Your task to perform on an android device: When is my next appointment? Image 0: 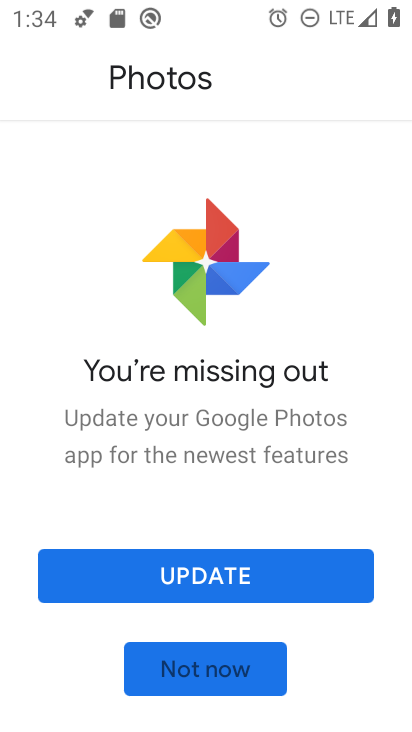
Step 0: press home button
Your task to perform on an android device: When is my next appointment? Image 1: 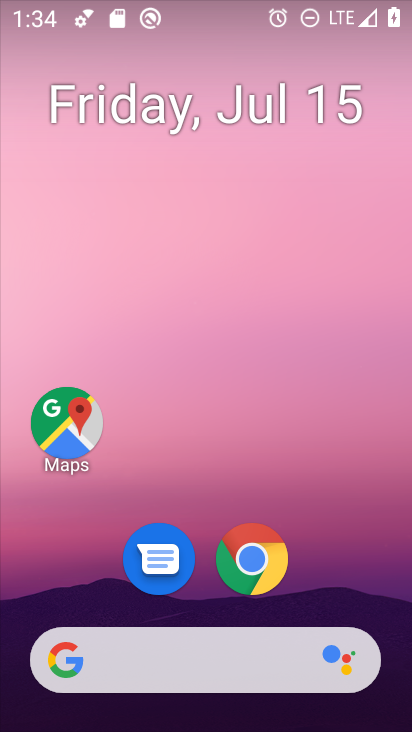
Step 1: drag from (328, 583) to (363, 93)
Your task to perform on an android device: When is my next appointment? Image 2: 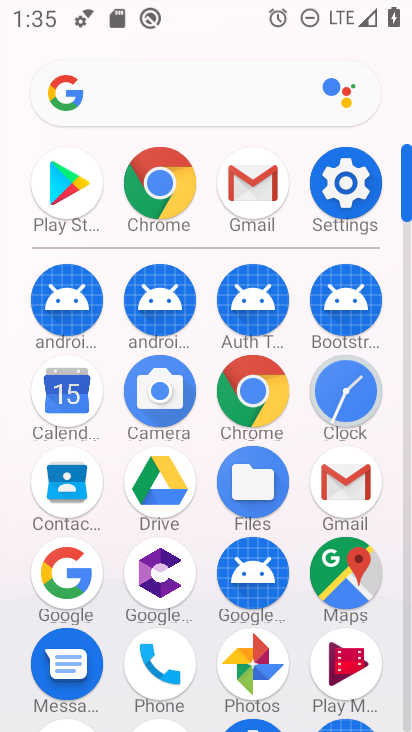
Step 2: click (61, 411)
Your task to perform on an android device: When is my next appointment? Image 3: 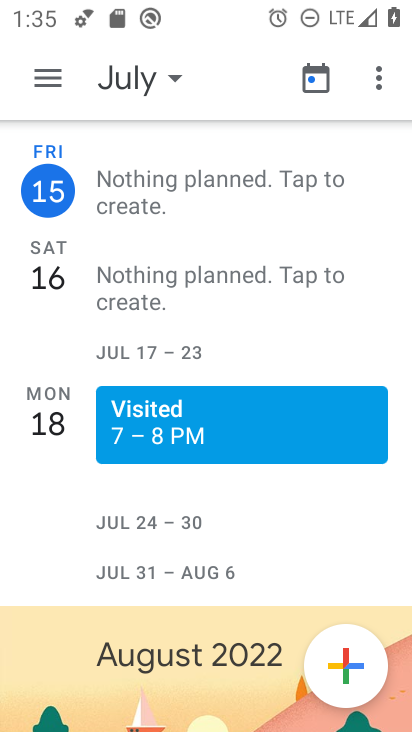
Step 3: drag from (252, 214) to (264, 331)
Your task to perform on an android device: When is my next appointment? Image 4: 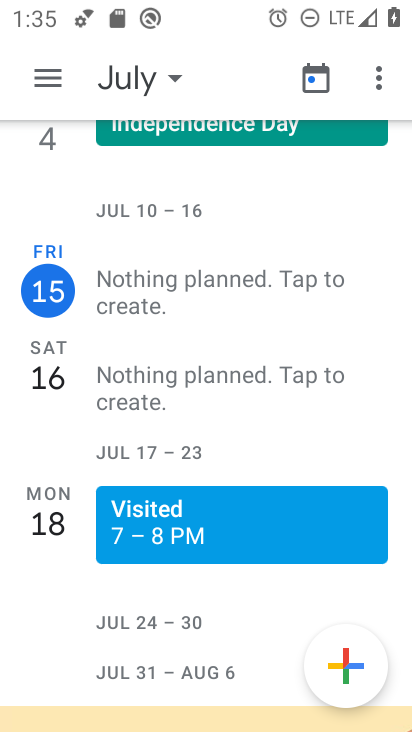
Step 4: click (215, 531)
Your task to perform on an android device: When is my next appointment? Image 5: 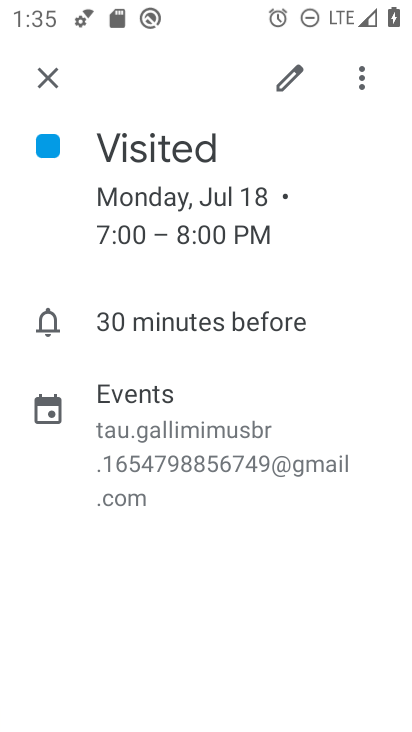
Step 5: task complete